Your task to perform on an android device: Open Android settings Image 0: 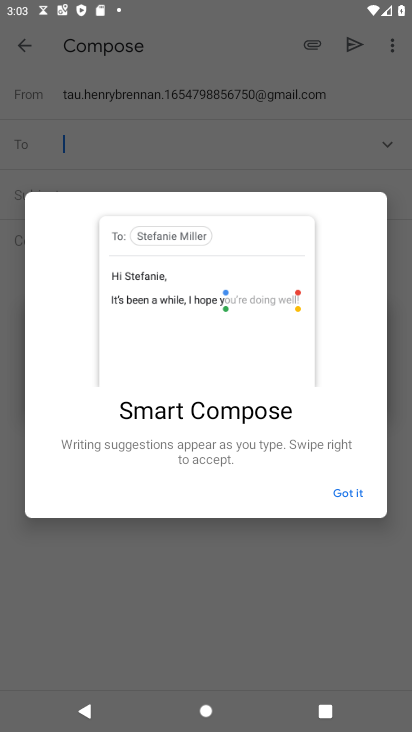
Step 0: press home button
Your task to perform on an android device: Open Android settings Image 1: 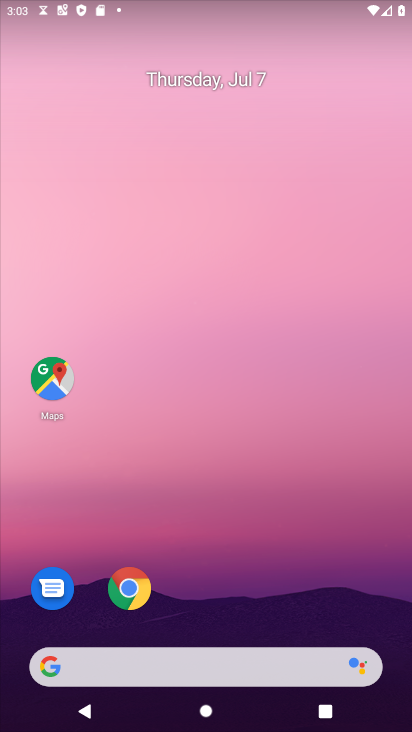
Step 1: drag from (253, 611) to (268, 87)
Your task to perform on an android device: Open Android settings Image 2: 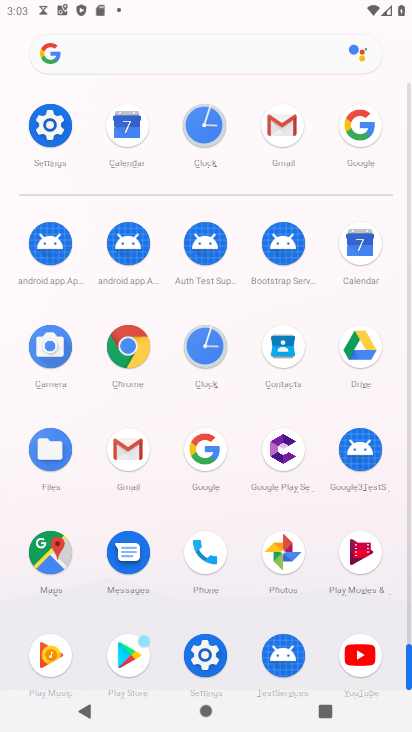
Step 2: click (52, 126)
Your task to perform on an android device: Open Android settings Image 3: 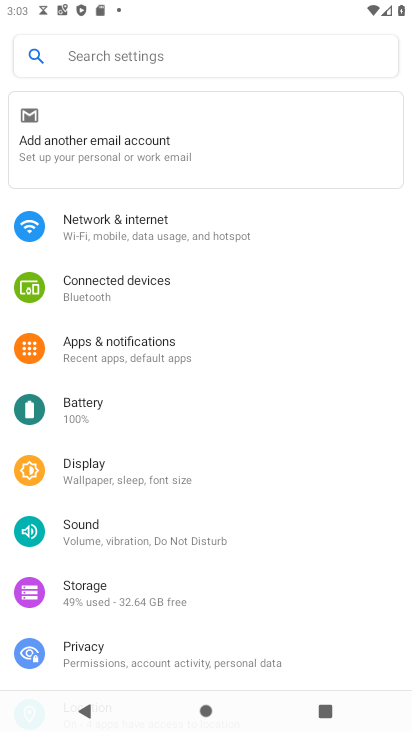
Step 3: task complete